Your task to perform on an android device: Open the stopwatch Image 0: 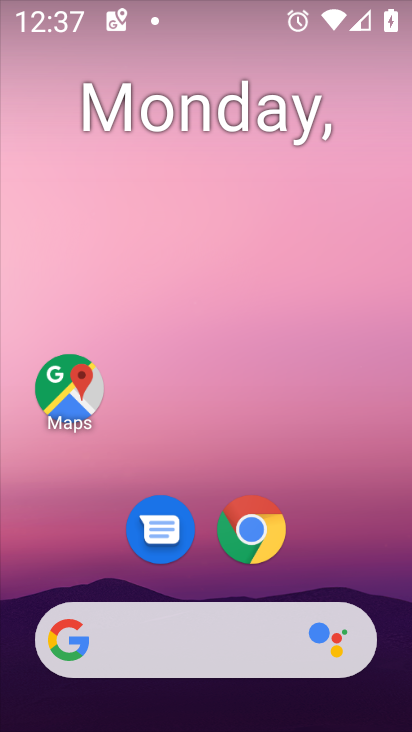
Step 0: drag from (214, 639) to (196, 81)
Your task to perform on an android device: Open the stopwatch Image 1: 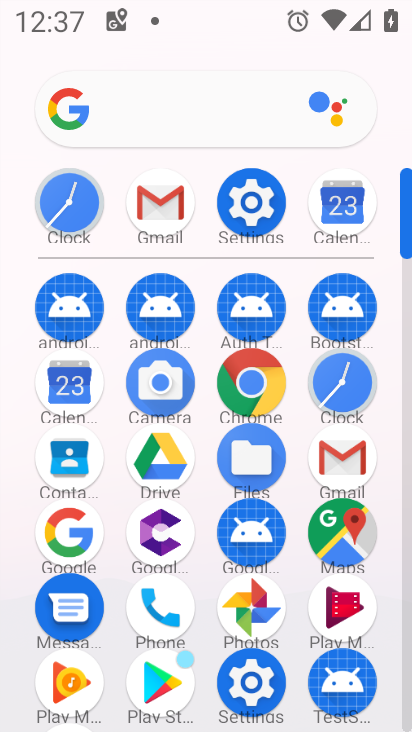
Step 1: click (339, 397)
Your task to perform on an android device: Open the stopwatch Image 2: 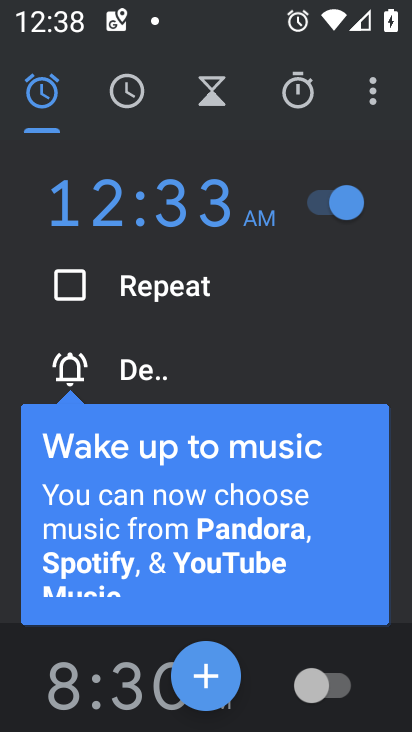
Step 2: click (275, 99)
Your task to perform on an android device: Open the stopwatch Image 3: 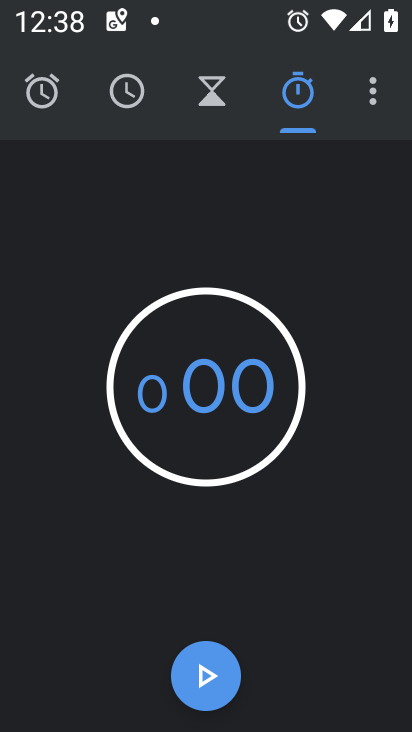
Step 3: task complete